Your task to perform on an android device: turn off improve location accuracy Image 0: 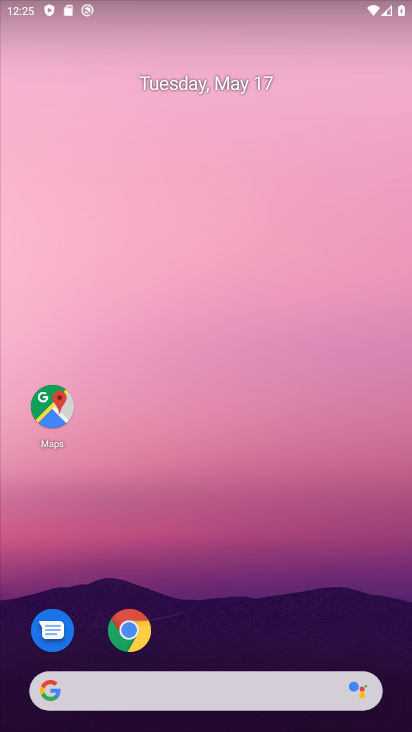
Step 0: drag from (328, 611) to (284, 134)
Your task to perform on an android device: turn off improve location accuracy Image 1: 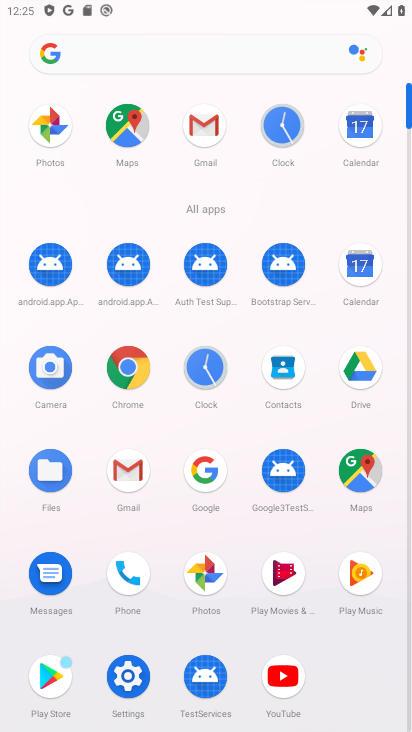
Step 1: click (125, 675)
Your task to perform on an android device: turn off improve location accuracy Image 2: 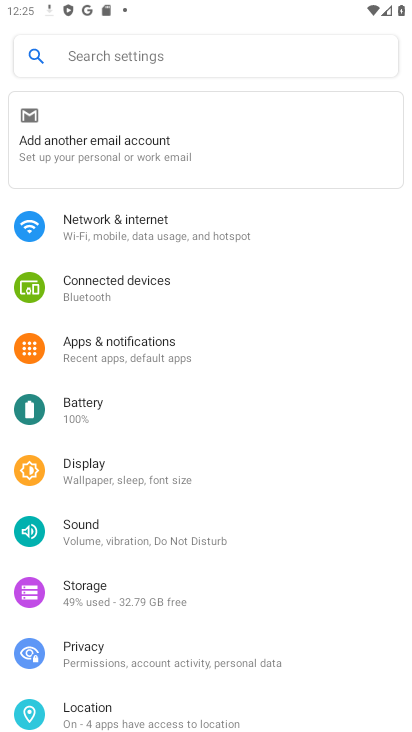
Step 2: drag from (205, 609) to (213, 310)
Your task to perform on an android device: turn off improve location accuracy Image 3: 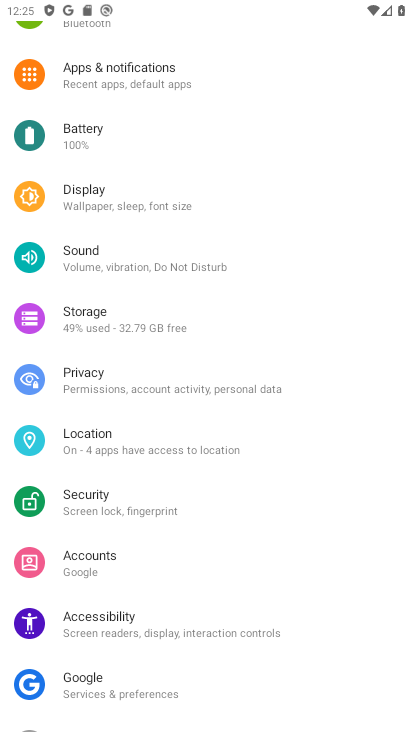
Step 3: click (204, 447)
Your task to perform on an android device: turn off improve location accuracy Image 4: 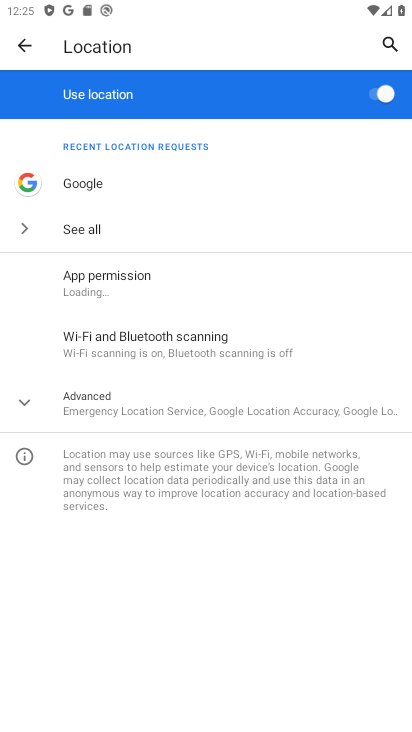
Step 4: drag from (222, 546) to (243, 404)
Your task to perform on an android device: turn off improve location accuracy Image 5: 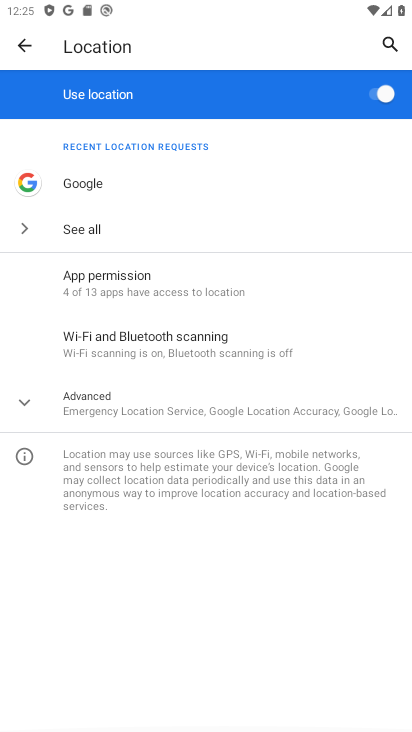
Step 5: click (243, 404)
Your task to perform on an android device: turn off improve location accuracy Image 6: 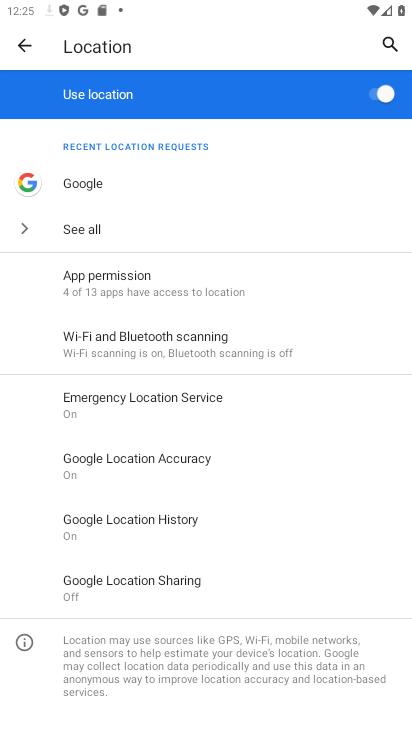
Step 6: click (290, 470)
Your task to perform on an android device: turn off improve location accuracy Image 7: 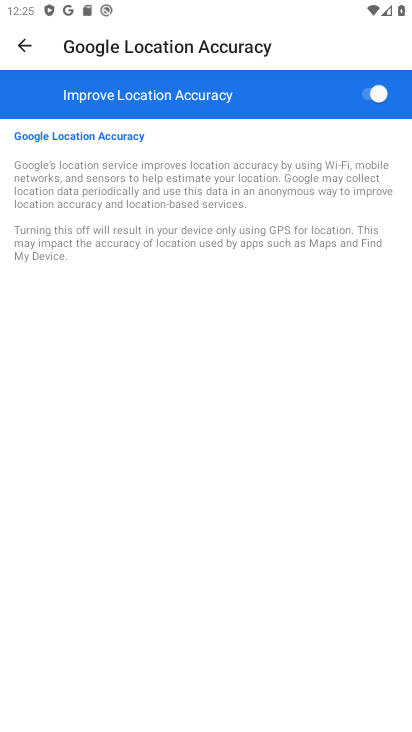
Step 7: click (378, 92)
Your task to perform on an android device: turn off improve location accuracy Image 8: 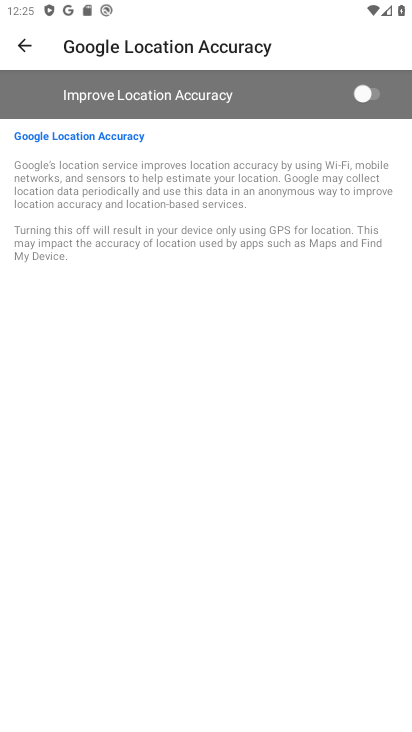
Step 8: task complete